Your task to perform on an android device: turn on bluetooth scan Image 0: 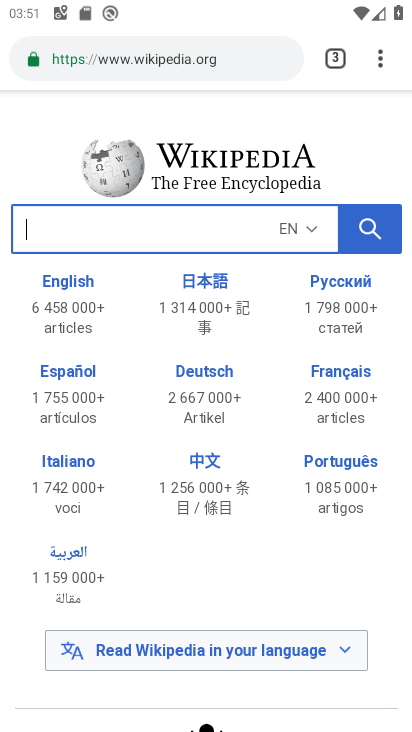
Step 0: press home button
Your task to perform on an android device: turn on bluetooth scan Image 1: 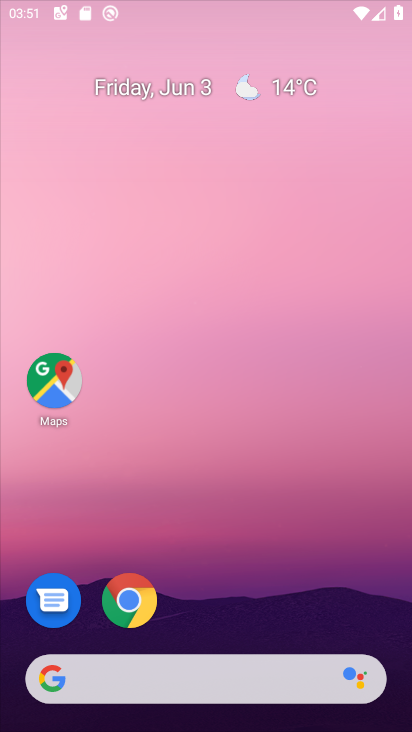
Step 1: drag from (281, 453) to (273, 78)
Your task to perform on an android device: turn on bluetooth scan Image 2: 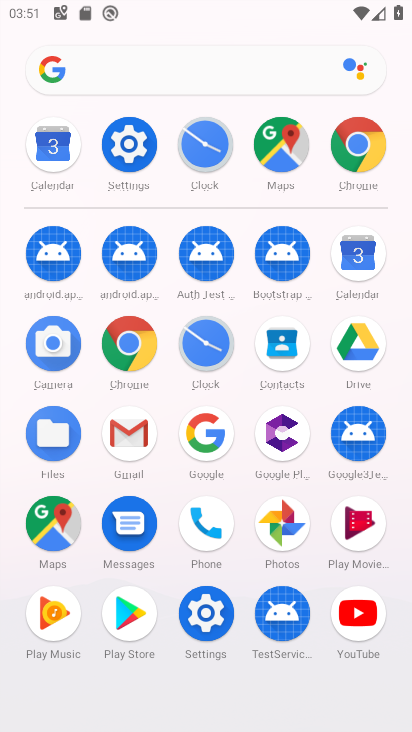
Step 2: click (116, 137)
Your task to perform on an android device: turn on bluetooth scan Image 3: 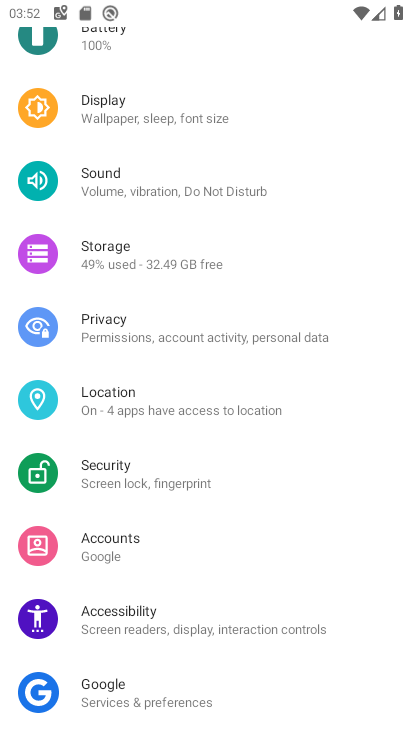
Step 3: click (152, 394)
Your task to perform on an android device: turn on bluetooth scan Image 4: 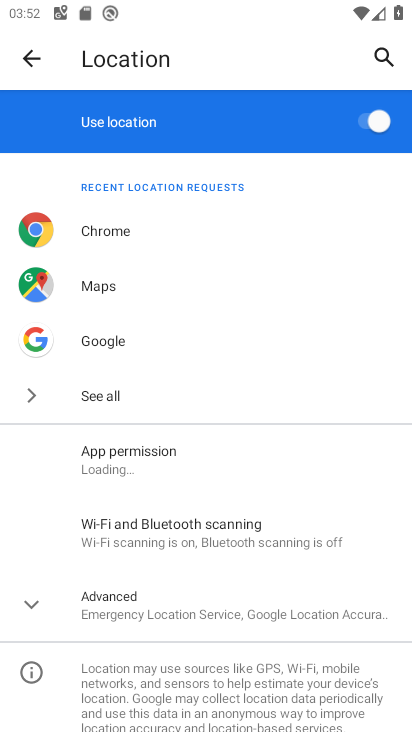
Step 4: click (184, 540)
Your task to perform on an android device: turn on bluetooth scan Image 5: 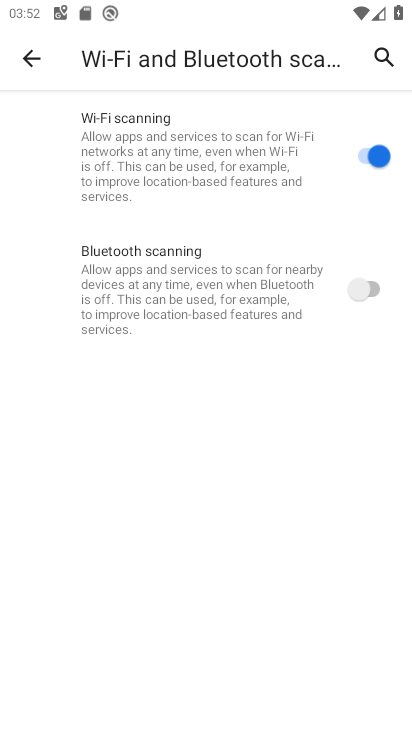
Step 5: click (388, 276)
Your task to perform on an android device: turn on bluetooth scan Image 6: 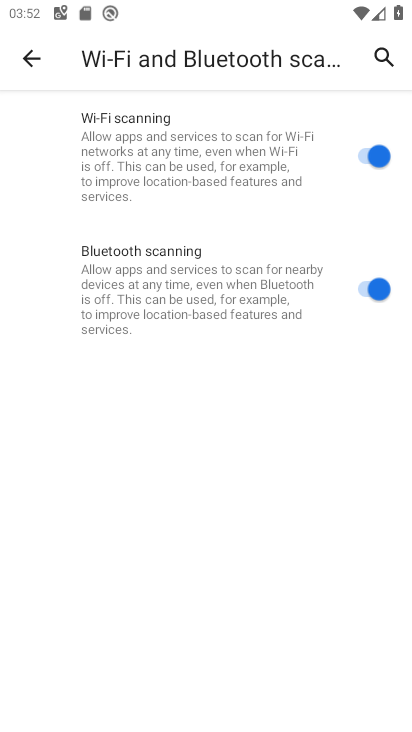
Step 6: task complete